Your task to perform on an android device: toggle notifications settings in the gmail app Image 0: 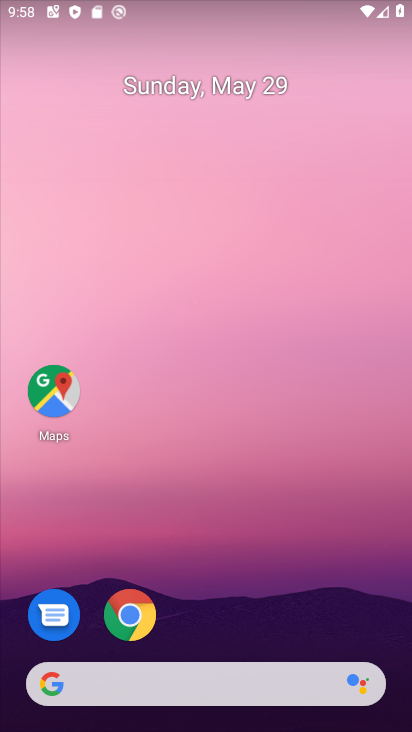
Step 0: drag from (221, 648) to (148, 174)
Your task to perform on an android device: toggle notifications settings in the gmail app Image 1: 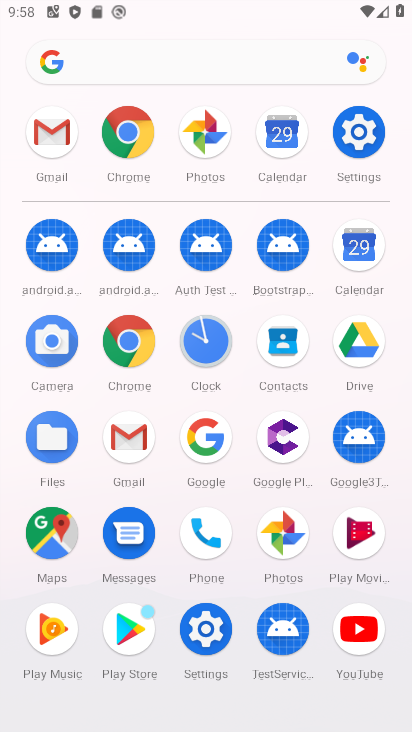
Step 1: click (127, 451)
Your task to perform on an android device: toggle notifications settings in the gmail app Image 2: 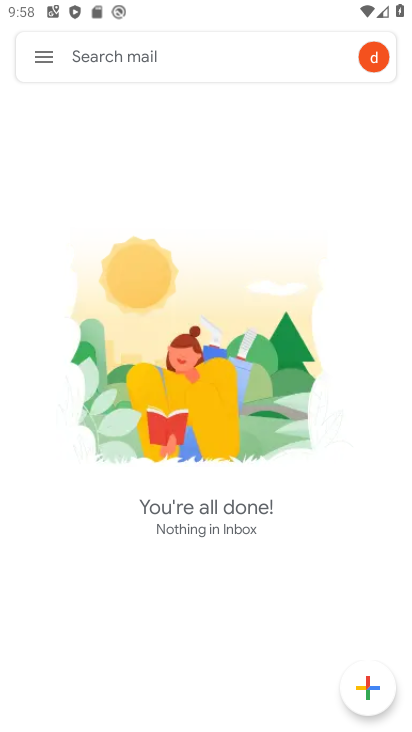
Step 2: click (52, 55)
Your task to perform on an android device: toggle notifications settings in the gmail app Image 3: 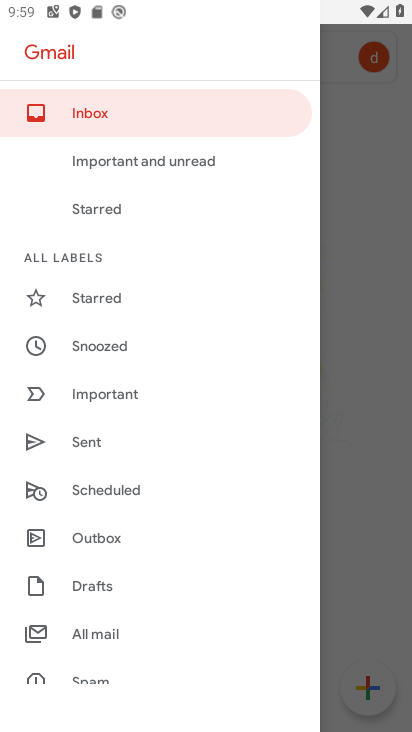
Step 3: drag from (125, 562) to (83, 106)
Your task to perform on an android device: toggle notifications settings in the gmail app Image 4: 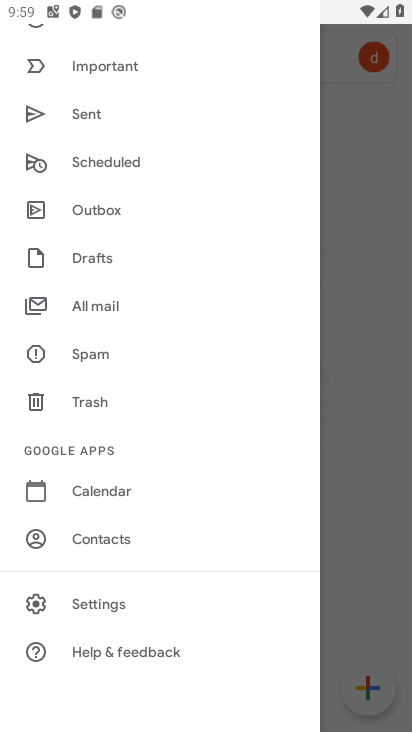
Step 4: click (80, 603)
Your task to perform on an android device: toggle notifications settings in the gmail app Image 5: 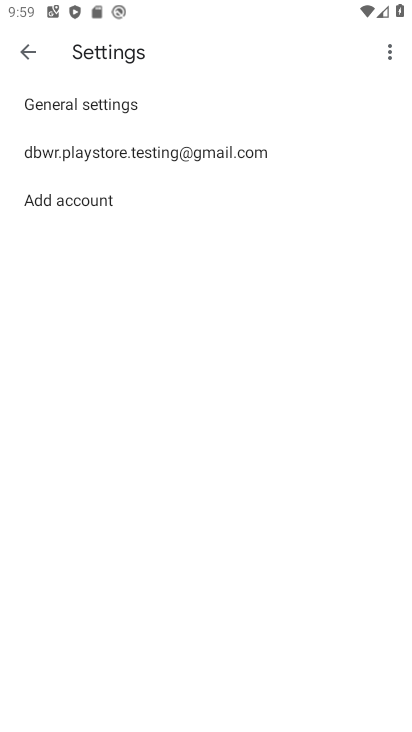
Step 5: click (86, 115)
Your task to perform on an android device: toggle notifications settings in the gmail app Image 6: 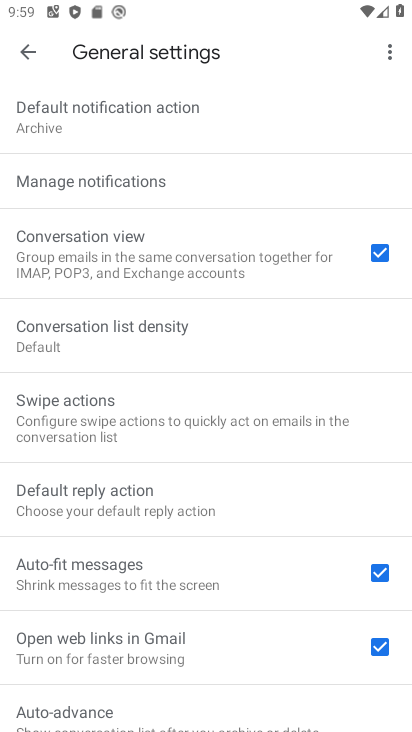
Step 6: click (77, 167)
Your task to perform on an android device: toggle notifications settings in the gmail app Image 7: 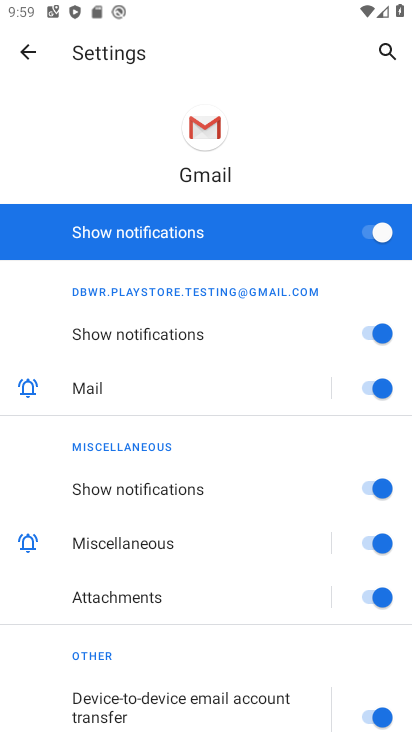
Step 7: drag from (140, 578) to (118, 398)
Your task to perform on an android device: toggle notifications settings in the gmail app Image 8: 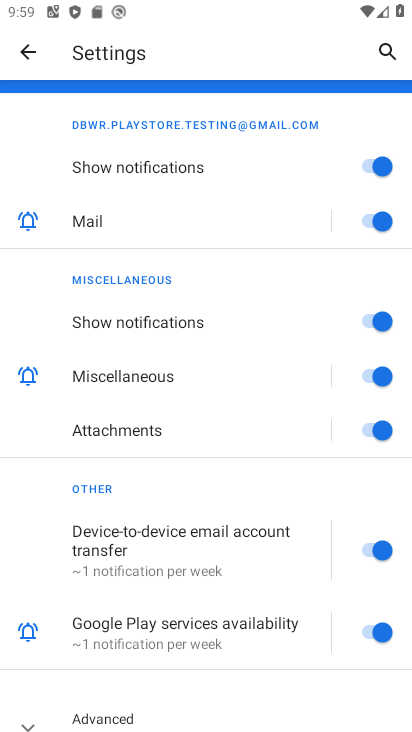
Step 8: drag from (365, 88) to (363, 198)
Your task to perform on an android device: toggle notifications settings in the gmail app Image 9: 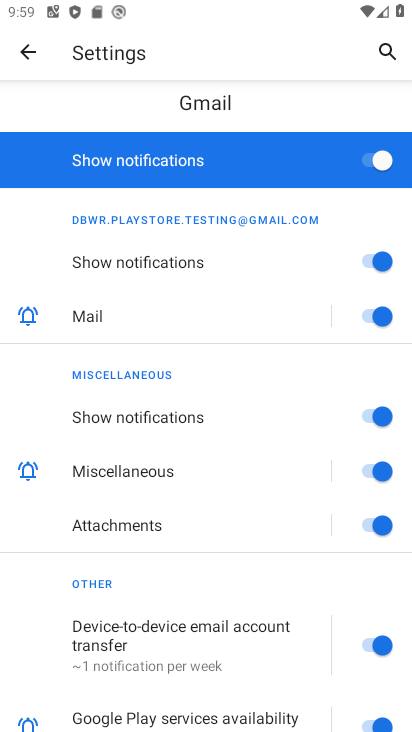
Step 9: click (366, 164)
Your task to perform on an android device: toggle notifications settings in the gmail app Image 10: 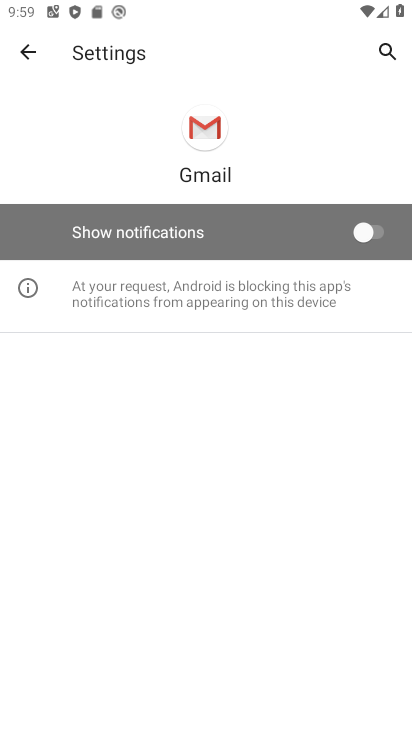
Step 10: task complete